Your task to perform on an android device: Open Reddit.com Image 0: 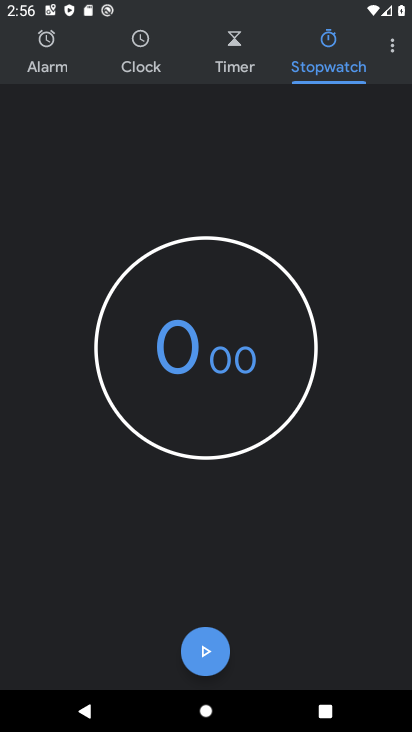
Step 0: press home button
Your task to perform on an android device: Open Reddit.com Image 1: 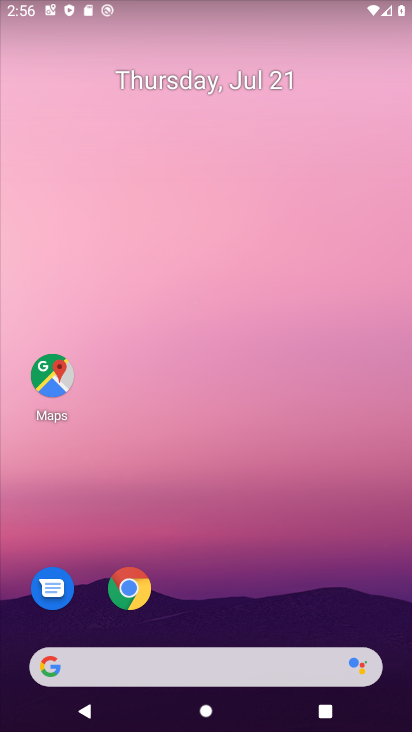
Step 1: click (137, 586)
Your task to perform on an android device: Open Reddit.com Image 2: 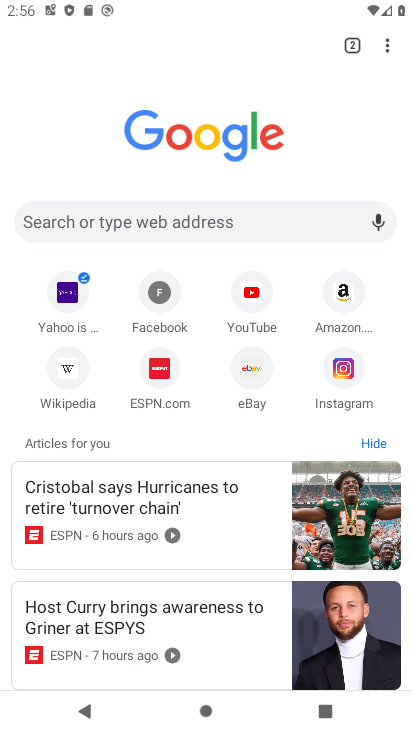
Step 2: click (145, 221)
Your task to perform on an android device: Open Reddit.com Image 3: 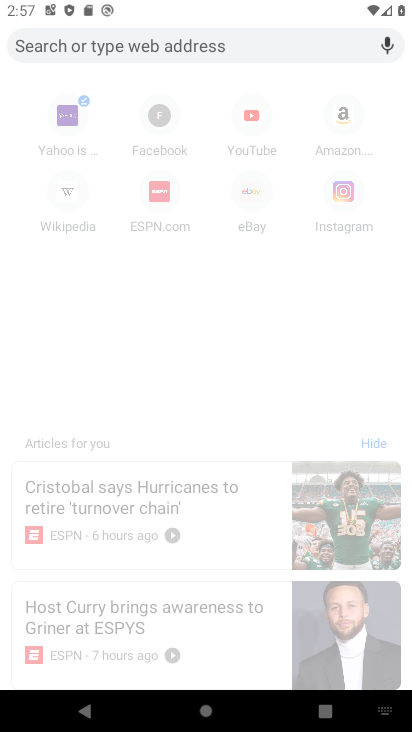
Step 3: type "reddit.com"
Your task to perform on an android device: Open Reddit.com Image 4: 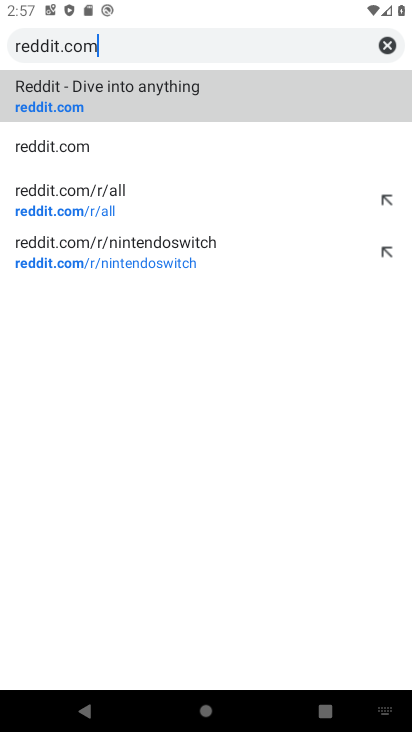
Step 4: click (48, 88)
Your task to perform on an android device: Open Reddit.com Image 5: 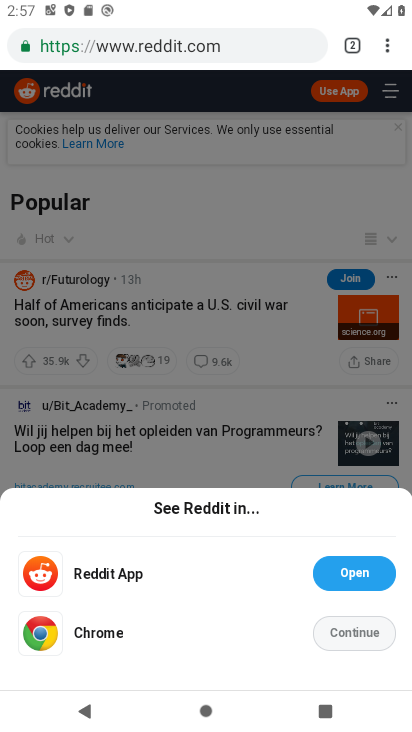
Step 5: click (353, 572)
Your task to perform on an android device: Open Reddit.com Image 6: 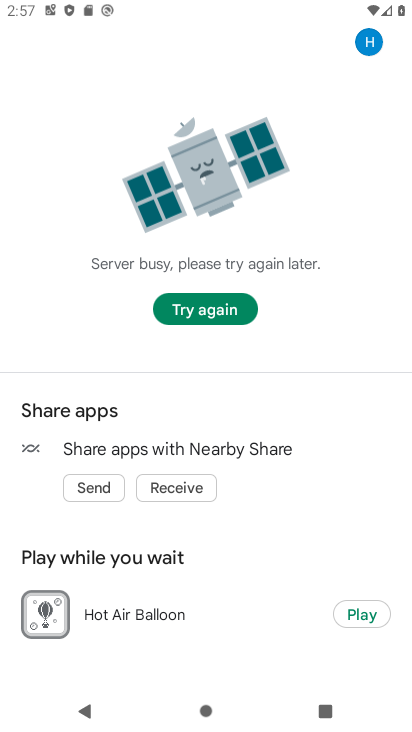
Step 6: click (212, 305)
Your task to perform on an android device: Open Reddit.com Image 7: 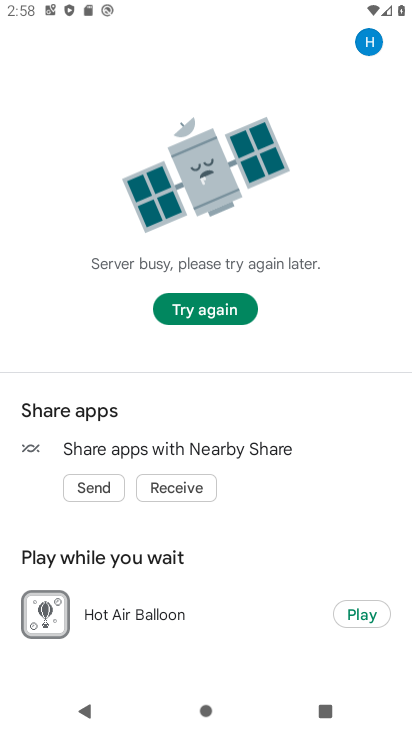
Step 7: task complete